Your task to perform on an android device: turn on airplane mode Image 0: 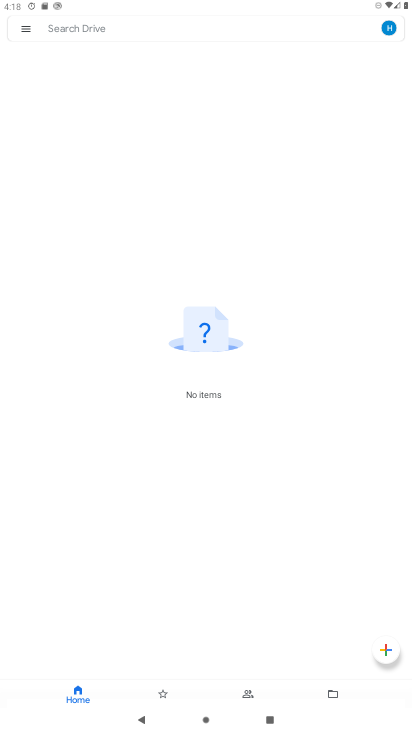
Step 0: press home button
Your task to perform on an android device: turn on airplane mode Image 1: 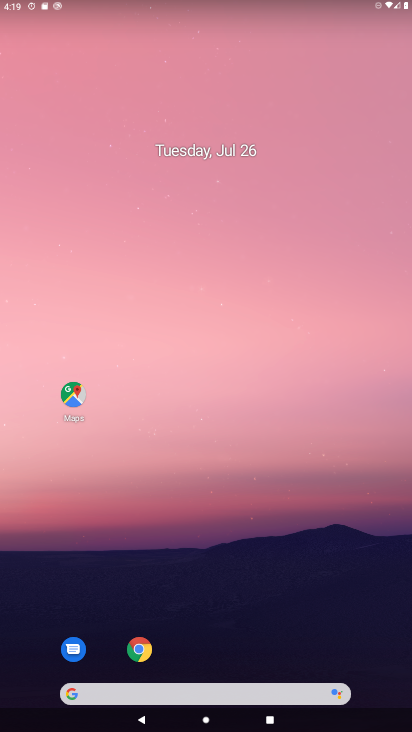
Step 1: drag from (235, 11) to (262, 592)
Your task to perform on an android device: turn on airplane mode Image 2: 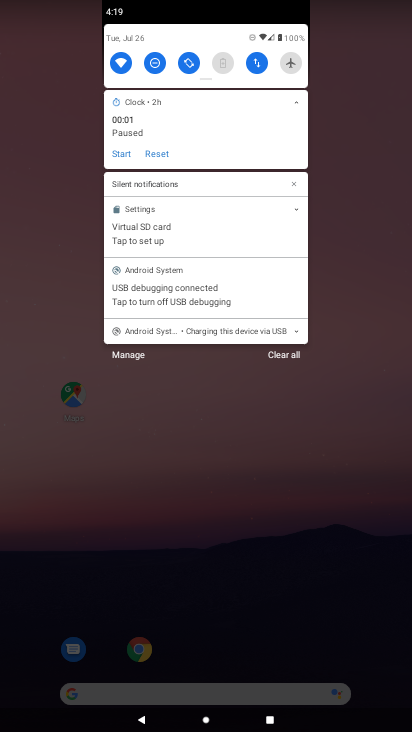
Step 2: click (295, 62)
Your task to perform on an android device: turn on airplane mode Image 3: 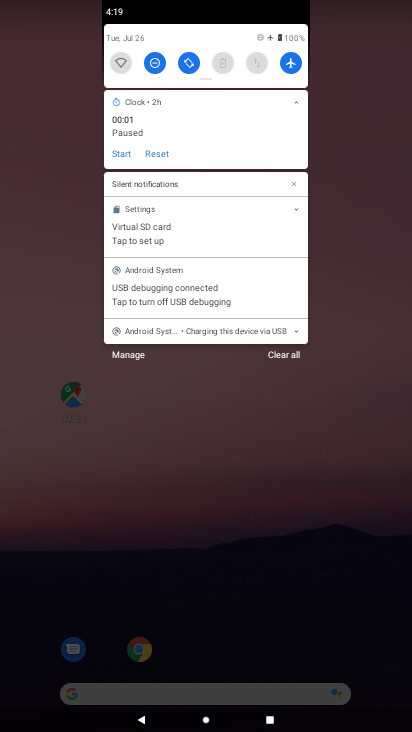
Step 3: task complete